Your task to perform on an android device: Open network settings Image 0: 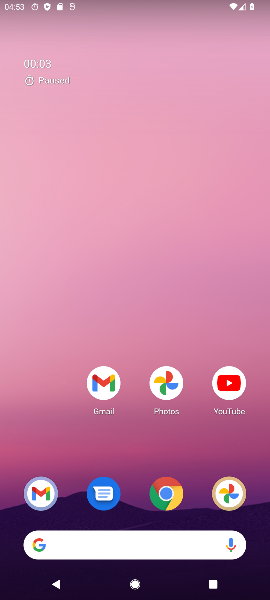
Step 0: drag from (14, 570) to (235, 49)
Your task to perform on an android device: Open network settings Image 1: 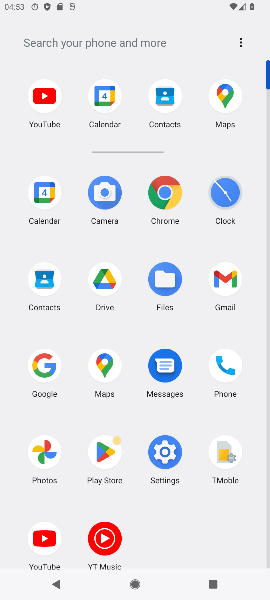
Step 1: click (157, 454)
Your task to perform on an android device: Open network settings Image 2: 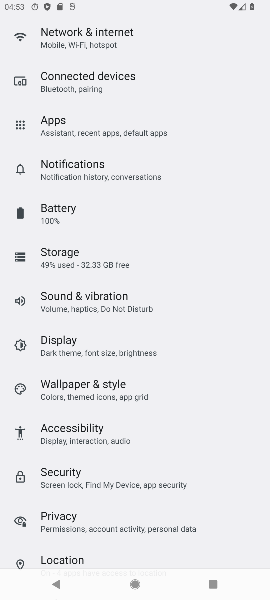
Step 2: drag from (150, 48) to (157, 385)
Your task to perform on an android device: Open network settings Image 3: 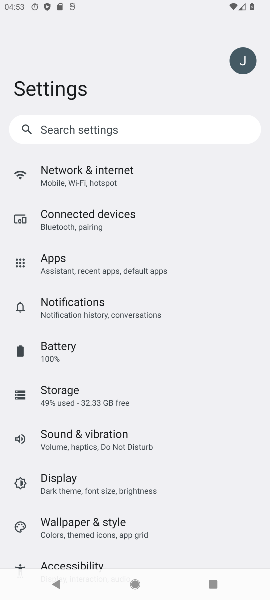
Step 3: click (92, 177)
Your task to perform on an android device: Open network settings Image 4: 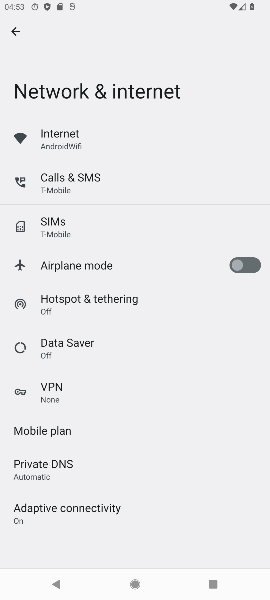
Step 4: click (88, 132)
Your task to perform on an android device: Open network settings Image 5: 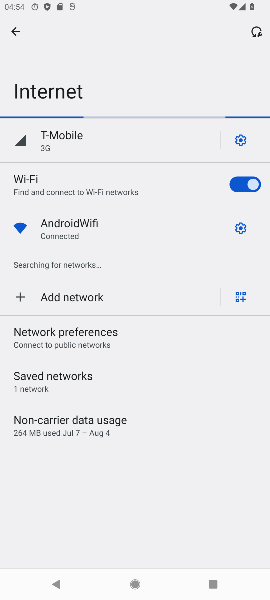
Step 5: task complete